Your task to perform on an android device: Open internet settings Image 0: 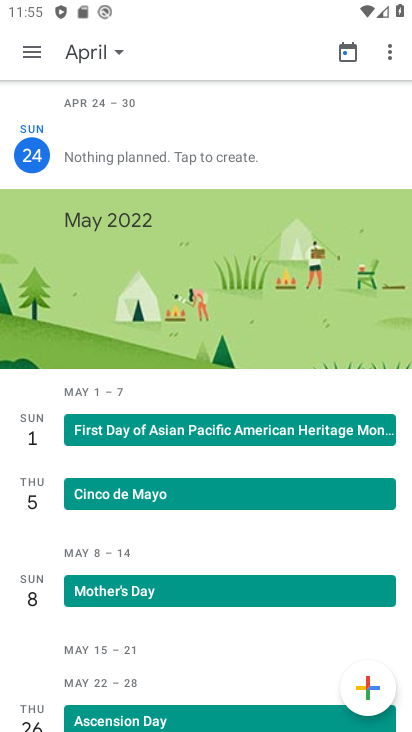
Step 0: press home button
Your task to perform on an android device: Open internet settings Image 1: 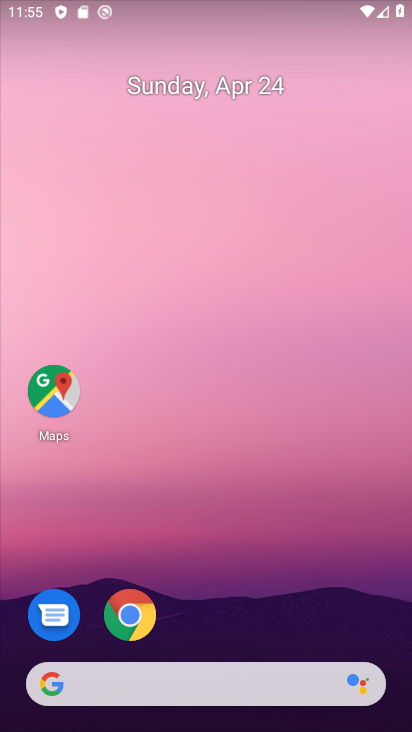
Step 1: drag from (352, 607) to (355, 95)
Your task to perform on an android device: Open internet settings Image 2: 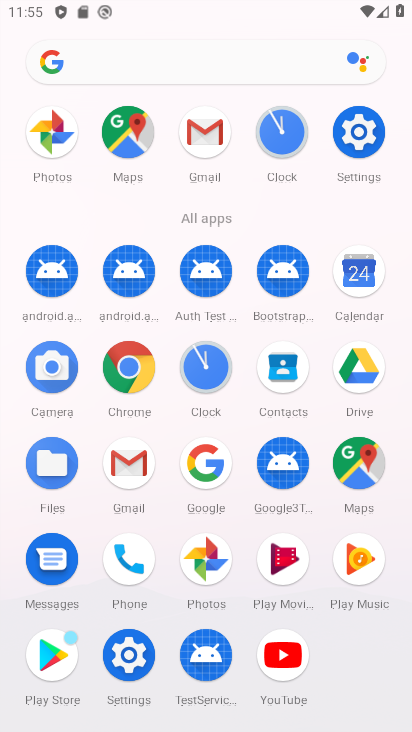
Step 2: click (369, 132)
Your task to perform on an android device: Open internet settings Image 3: 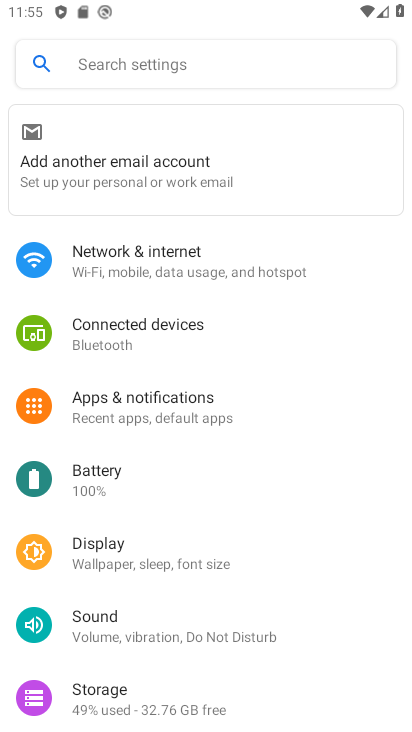
Step 3: click (274, 263)
Your task to perform on an android device: Open internet settings Image 4: 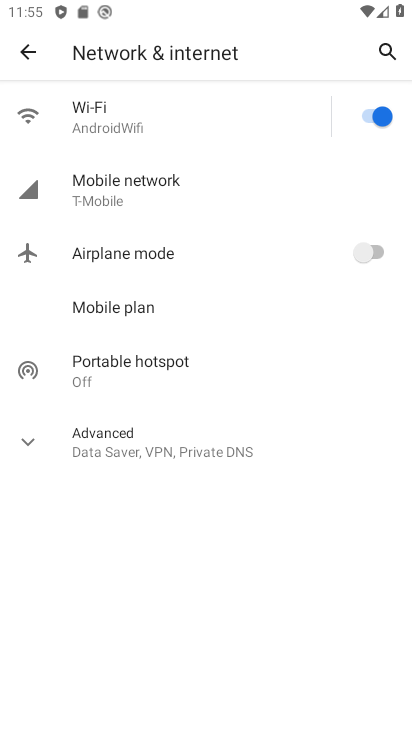
Step 4: task complete